Your task to perform on an android device: change keyboard looks Image 0: 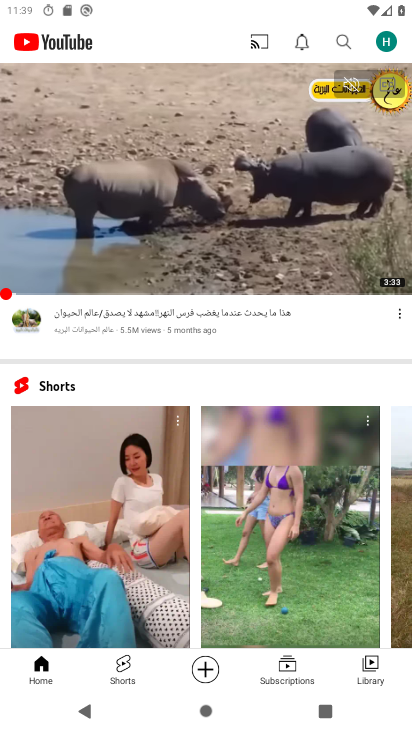
Step 0: press home button
Your task to perform on an android device: change keyboard looks Image 1: 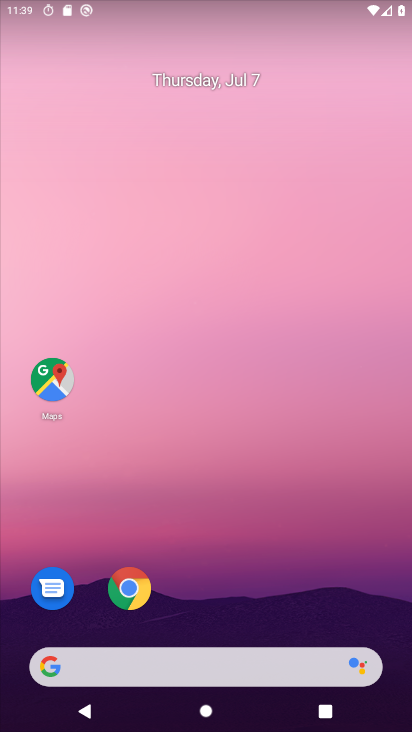
Step 1: drag from (181, 642) to (325, 39)
Your task to perform on an android device: change keyboard looks Image 2: 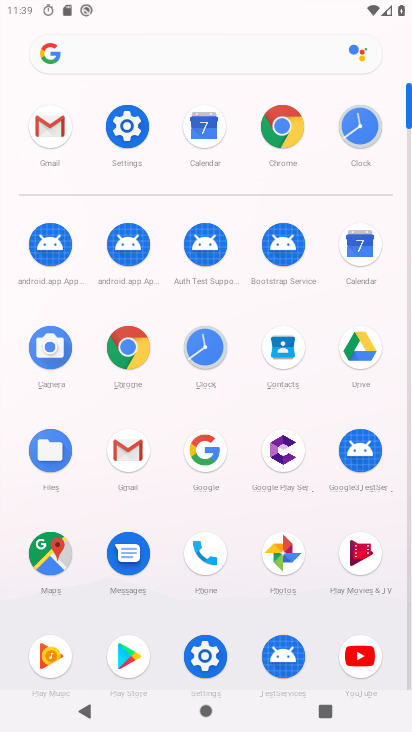
Step 2: click (121, 125)
Your task to perform on an android device: change keyboard looks Image 3: 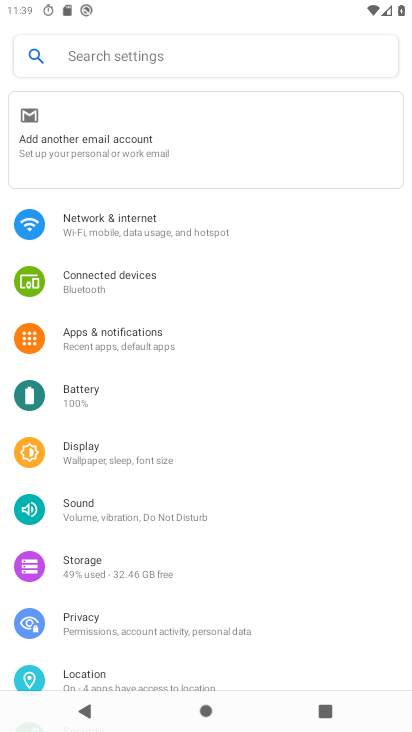
Step 3: drag from (204, 646) to (341, 163)
Your task to perform on an android device: change keyboard looks Image 4: 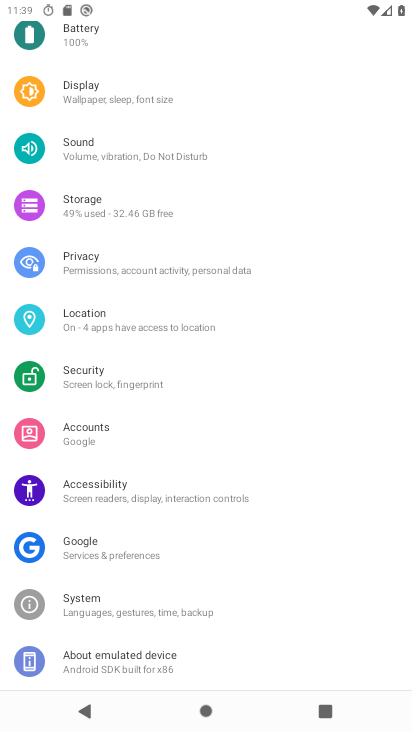
Step 4: click (126, 607)
Your task to perform on an android device: change keyboard looks Image 5: 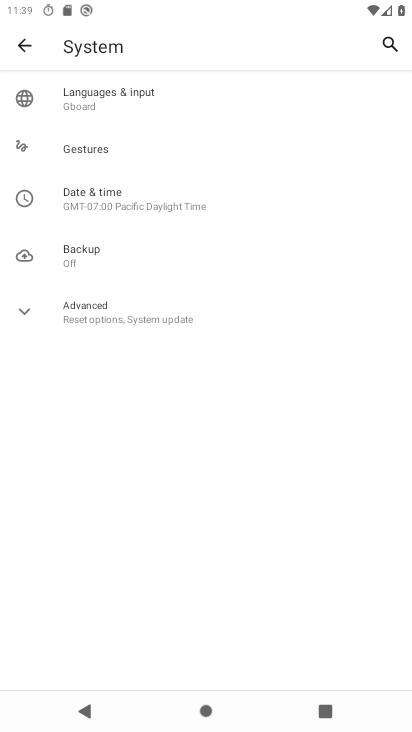
Step 5: click (121, 93)
Your task to perform on an android device: change keyboard looks Image 6: 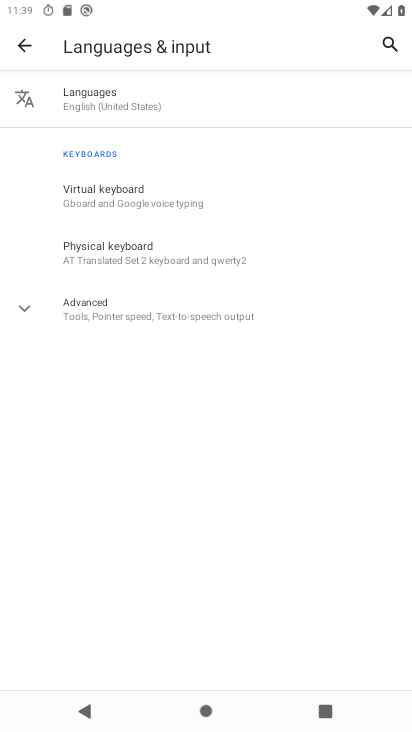
Step 6: click (113, 198)
Your task to perform on an android device: change keyboard looks Image 7: 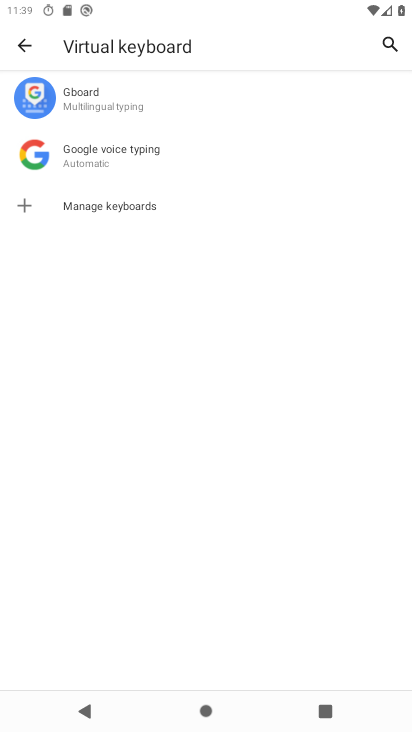
Step 7: click (112, 100)
Your task to perform on an android device: change keyboard looks Image 8: 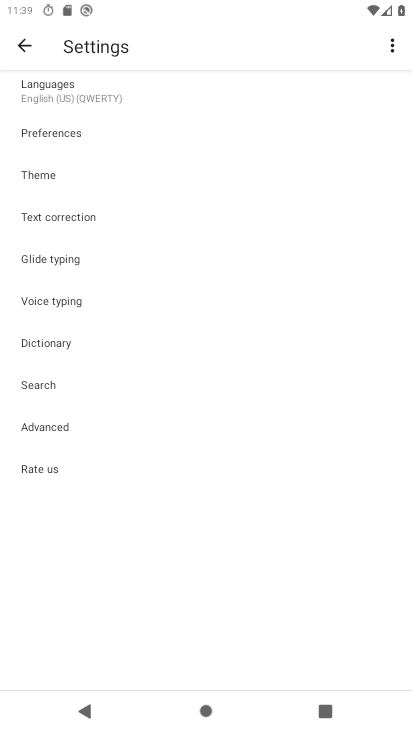
Step 8: click (43, 170)
Your task to perform on an android device: change keyboard looks Image 9: 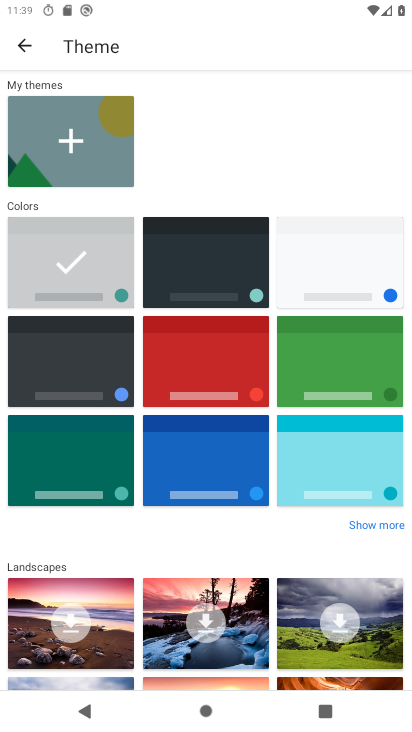
Step 9: click (186, 341)
Your task to perform on an android device: change keyboard looks Image 10: 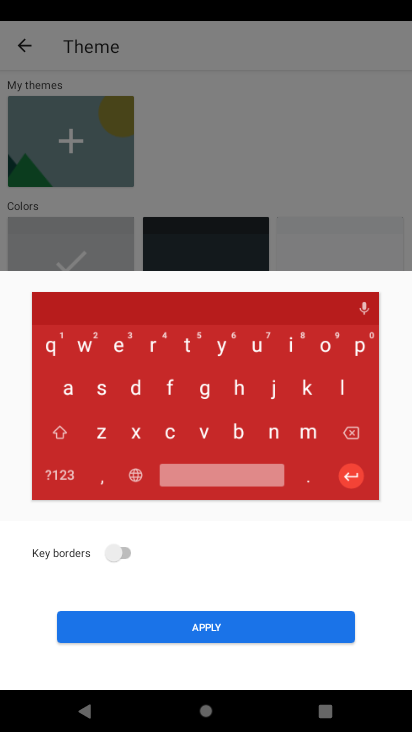
Step 10: click (198, 627)
Your task to perform on an android device: change keyboard looks Image 11: 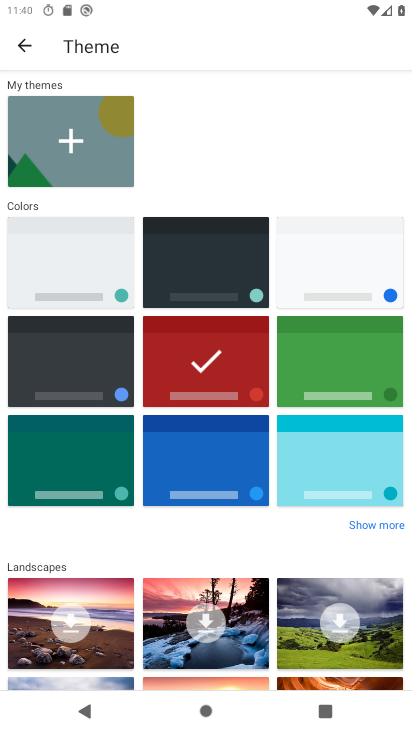
Step 11: task complete